Your task to perform on an android device: Open the web browser Image 0: 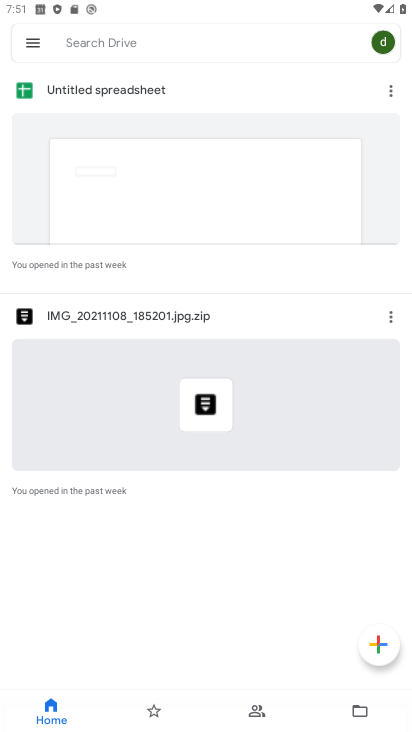
Step 0: task complete